Your task to perform on an android device: open device folders in google photos Image 0: 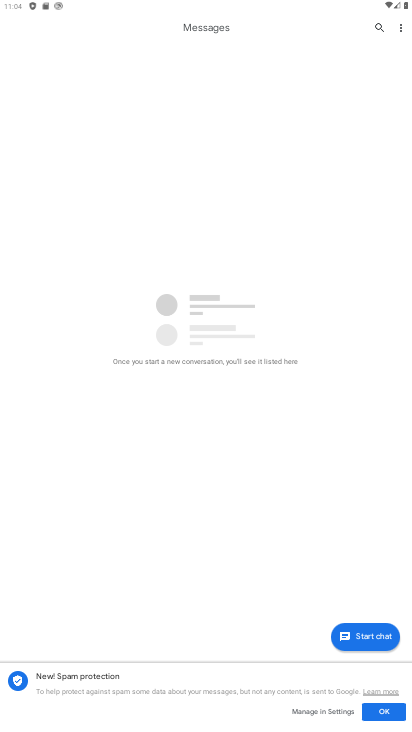
Step 0: press home button
Your task to perform on an android device: open device folders in google photos Image 1: 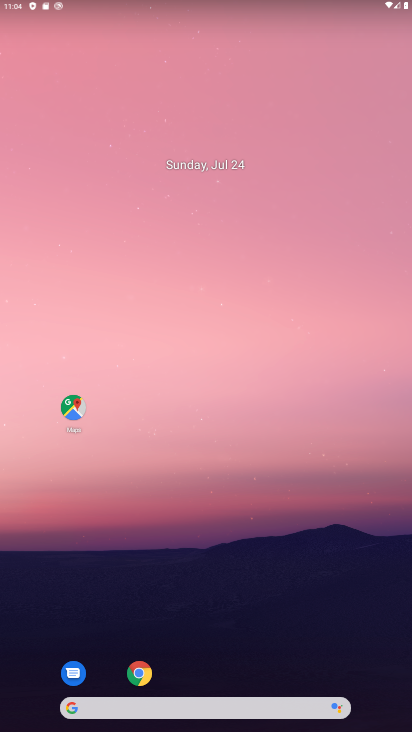
Step 1: drag from (304, 598) to (309, 15)
Your task to perform on an android device: open device folders in google photos Image 2: 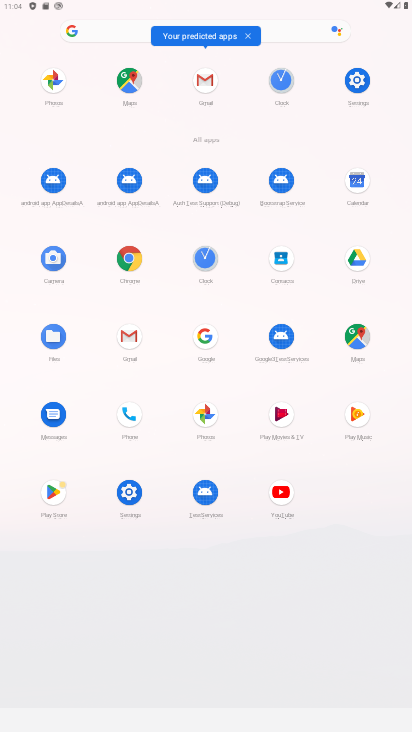
Step 2: click (200, 419)
Your task to perform on an android device: open device folders in google photos Image 3: 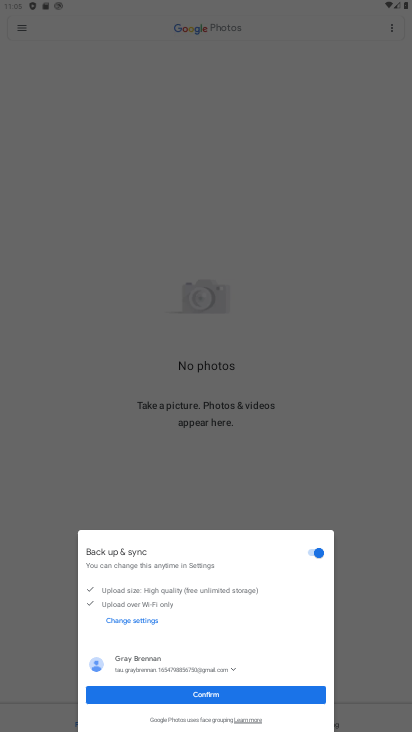
Step 3: click (273, 694)
Your task to perform on an android device: open device folders in google photos Image 4: 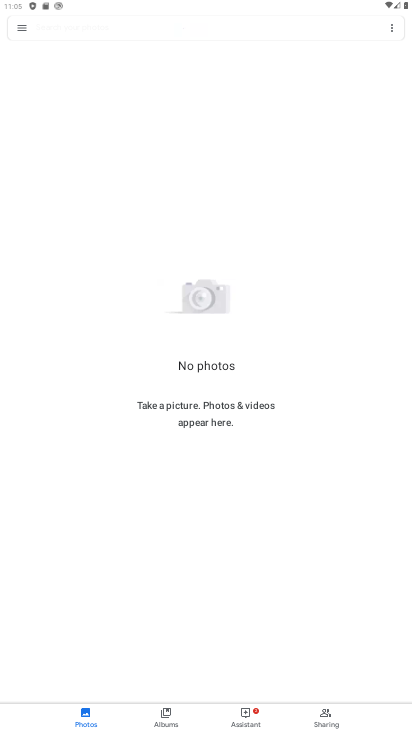
Step 4: click (21, 32)
Your task to perform on an android device: open device folders in google photos Image 5: 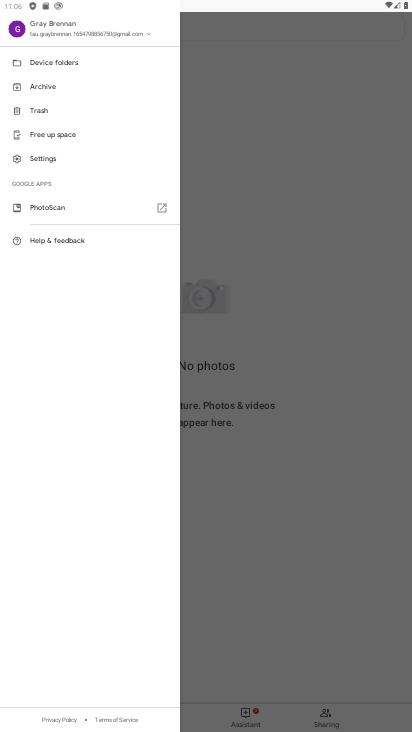
Step 5: click (44, 68)
Your task to perform on an android device: open device folders in google photos Image 6: 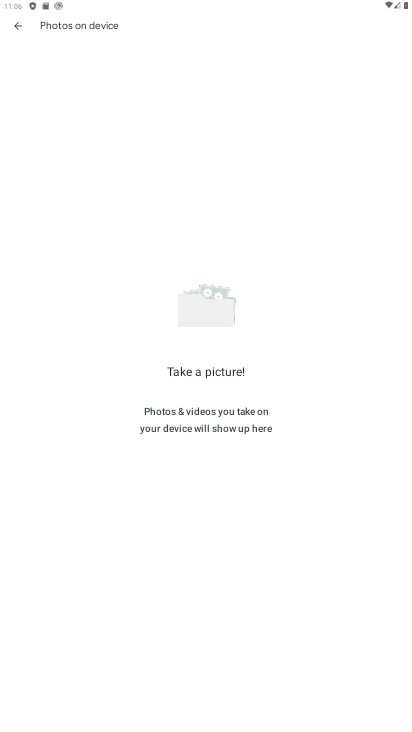
Step 6: task complete